Your task to perform on an android device: turn off sleep mode Image 0: 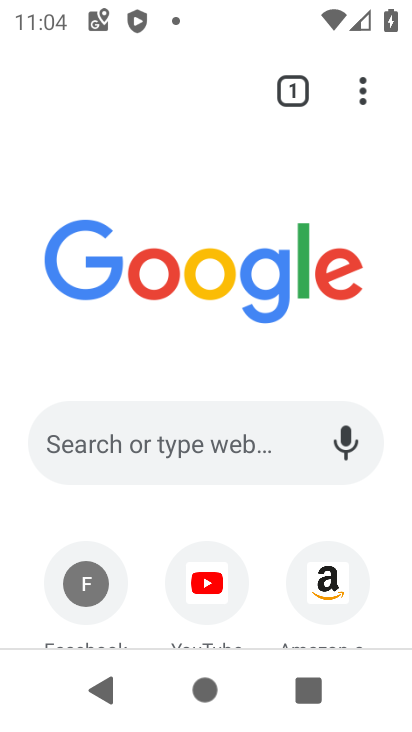
Step 0: press home button
Your task to perform on an android device: turn off sleep mode Image 1: 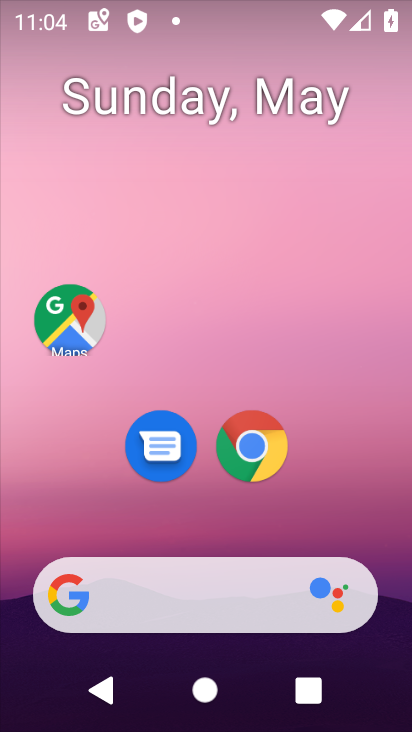
Step 1: drag from (207, 542) to (258, 70)
Your task to perform on an android device: turn off sleep mode Image 2: 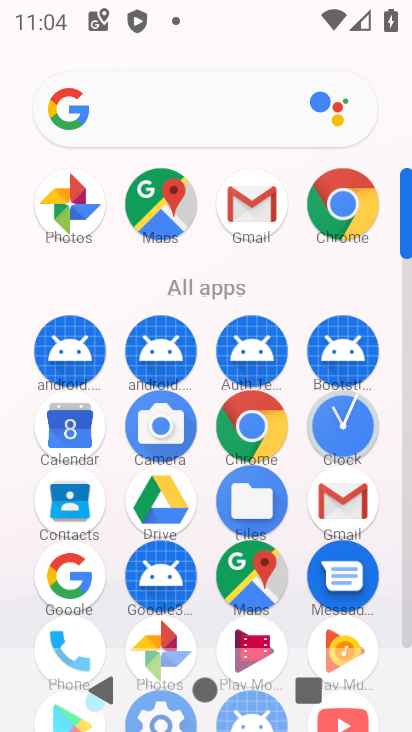
Step 2: drag from (209, 616) to (262, 136)
Your task to perform on an android device: turn off sleep mode Image 3: 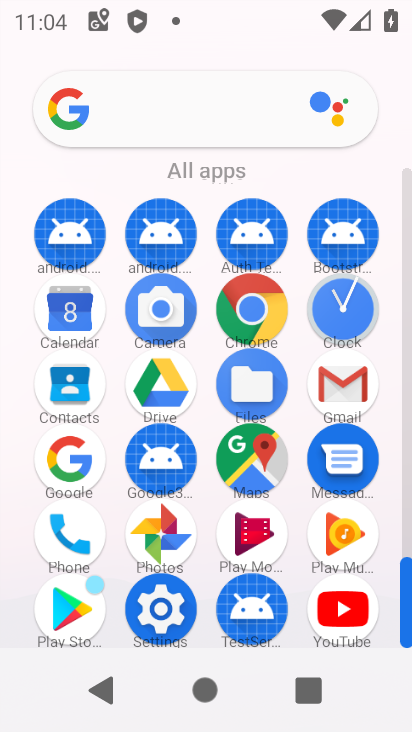
Step 3: click (158, 601)
Your task to perform on an android device: turn off sleep mode Image 4: 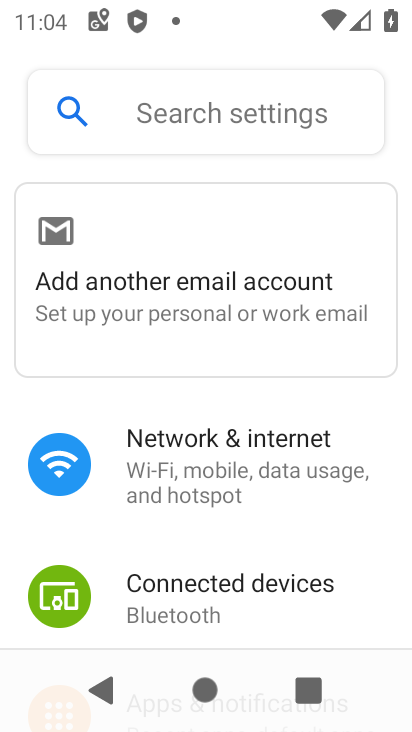
Step 4: drag from (237, 605) to (273, 305)
Your task to perform on an android device: turn off sleep mode Image 5: 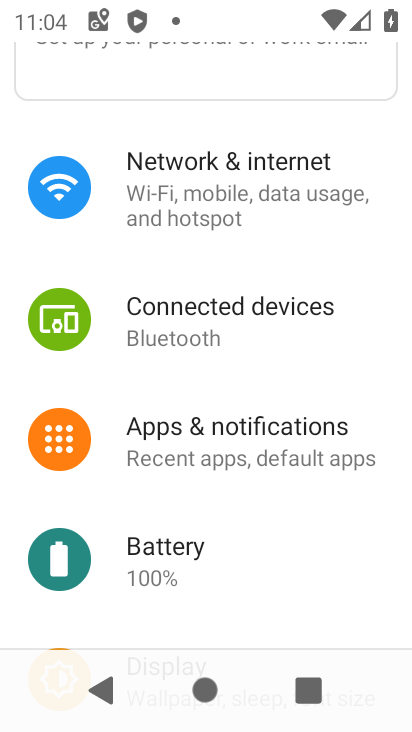
Step 5: click (287, 245)
Your task to perform on an android device: turn off sleep mode Image 6: 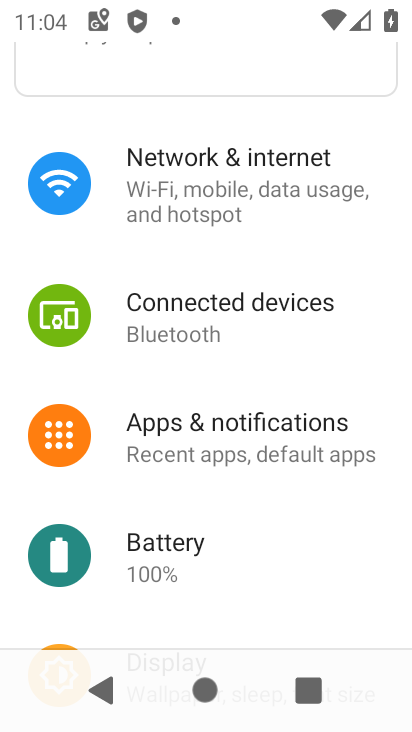
Step 6: drag from (236, 552) to (288, 86)
Your task to perform on an android device: turn off sleep mode Image 7: 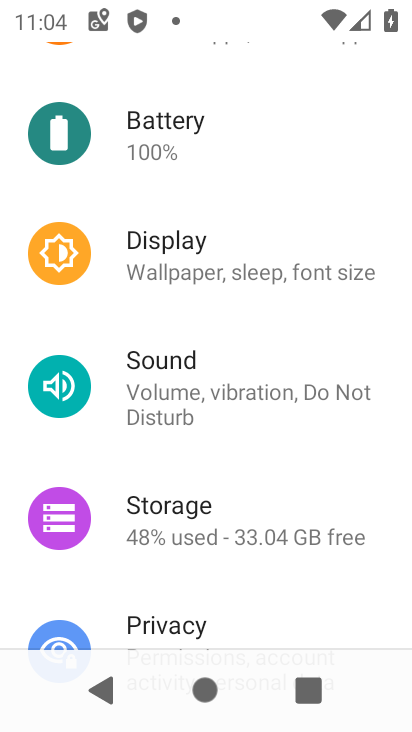
Step 7: click (244, 286)
Your task to perform on an android device: turn off sleep mode Image 8: 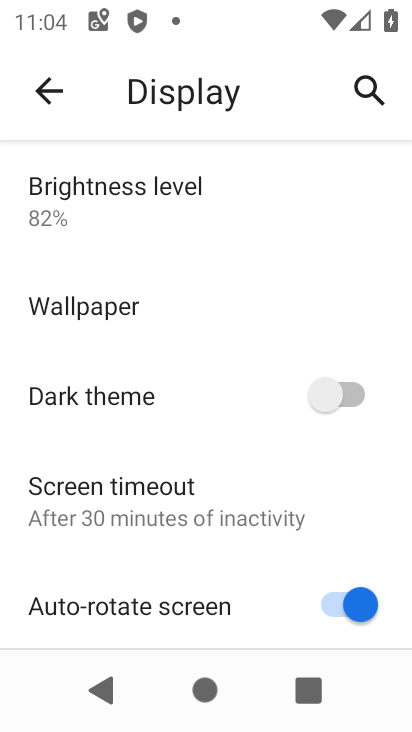
Step 8: drag from (188, 538) to (226, 314)
Your task to perform on an android device: turn off sleep mode Image 9: 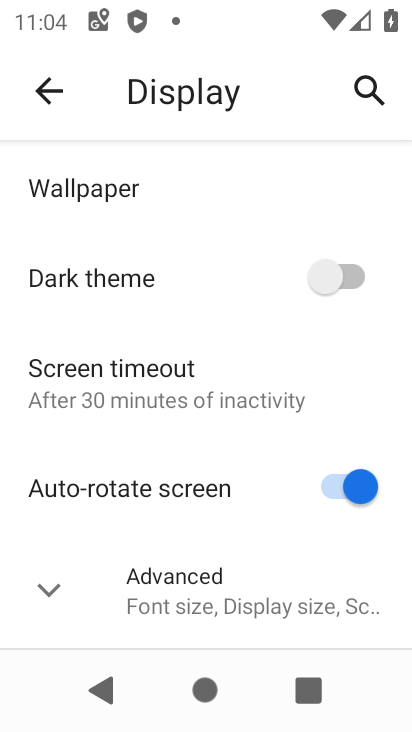
Step 9: click (161, 381)
Your task to perform on an android device: turn off sleep mode Image 10: 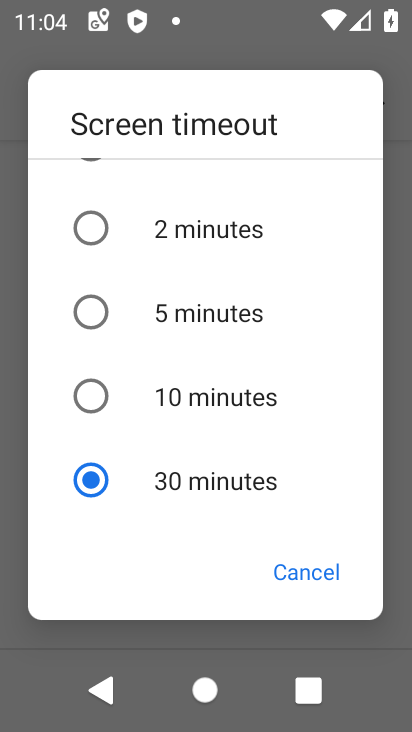
Step 10: task complete